Your task to perform on an android device: Go to Android settings Image 0: 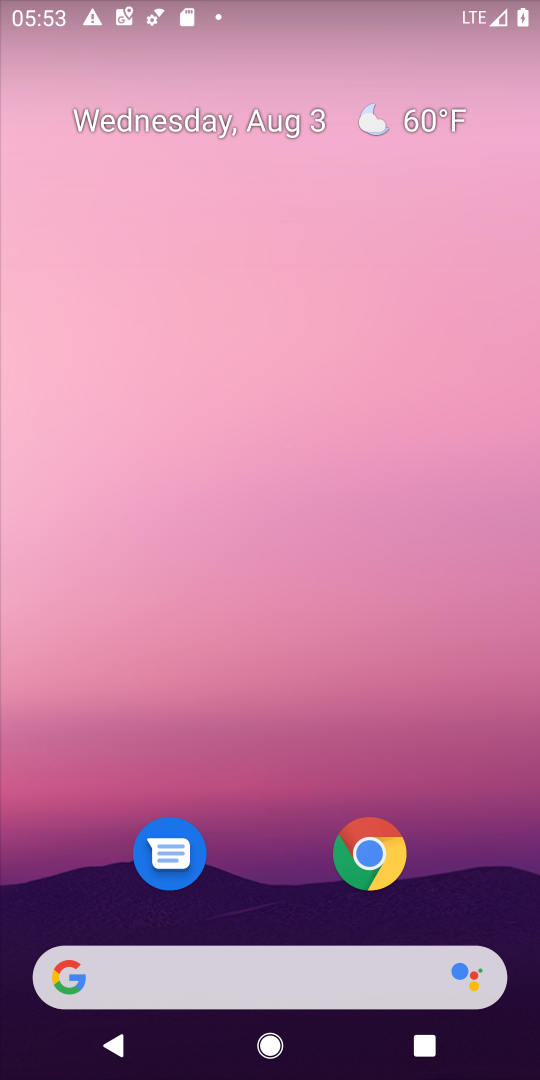
Step 0: drag from (312, 1036) to (312, 64)
Your task to perform on an android device: Go to Android settings Image 1: 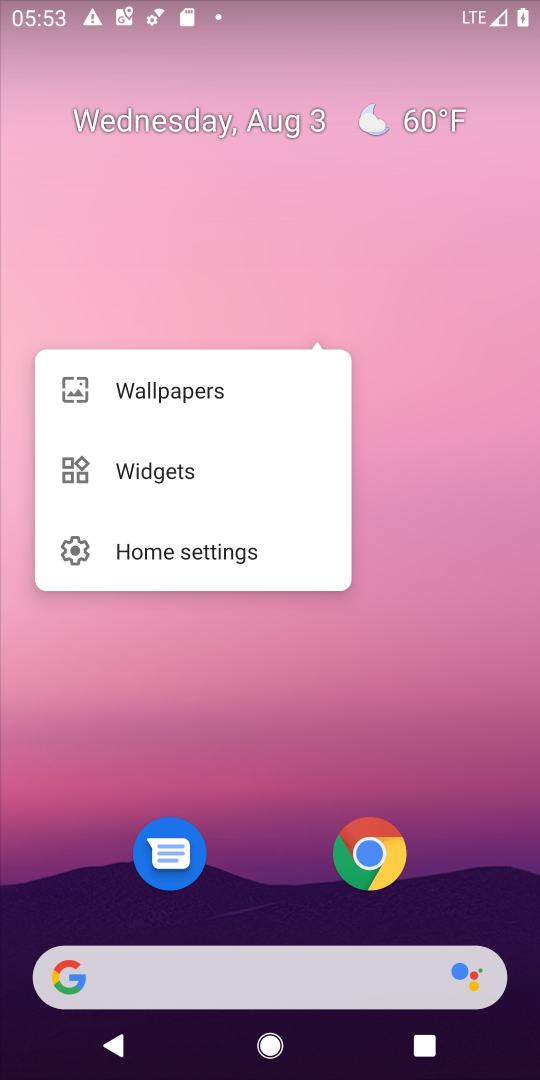
Step 1: click (411, 621)
Your task to perform on an android device: Go to Android settings Image 2: 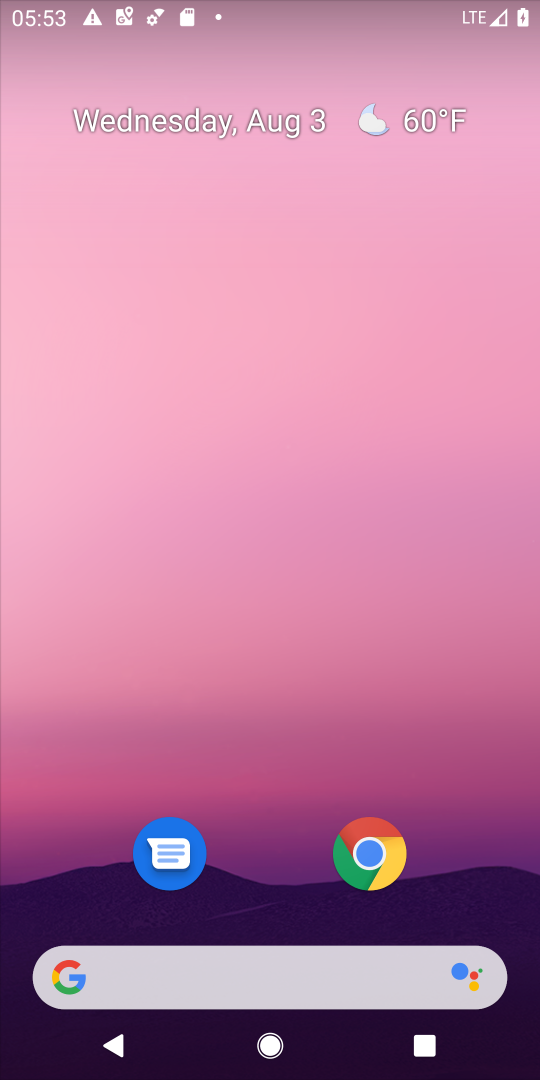
Step 2: drag from (262, 922) to (264, 157)
Your task to perform on an android device: Go to Android settings Image 3: 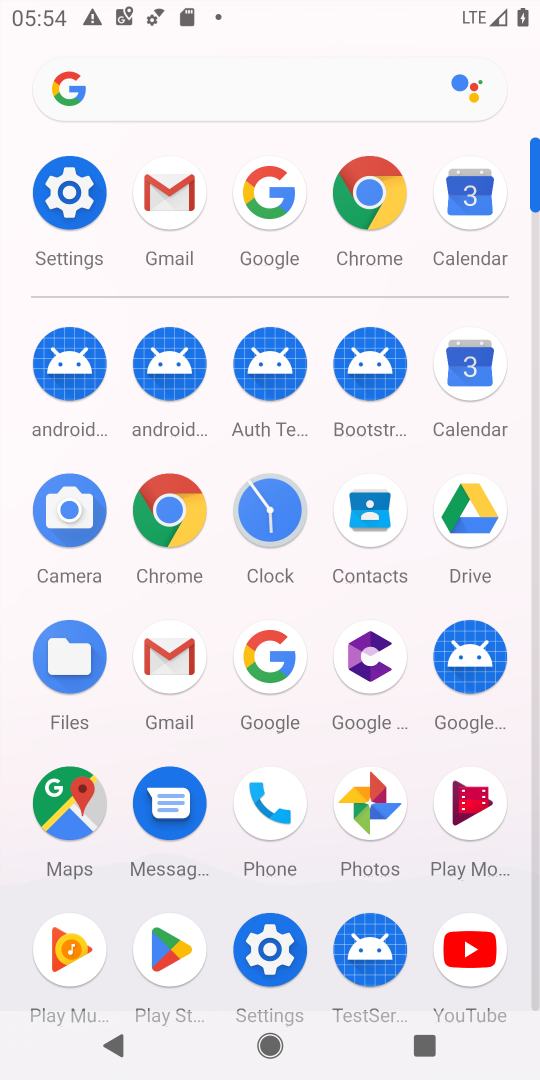
Step 3: click (80, 209)
Your task to perform on an android device: Go to Android settings Image 4: 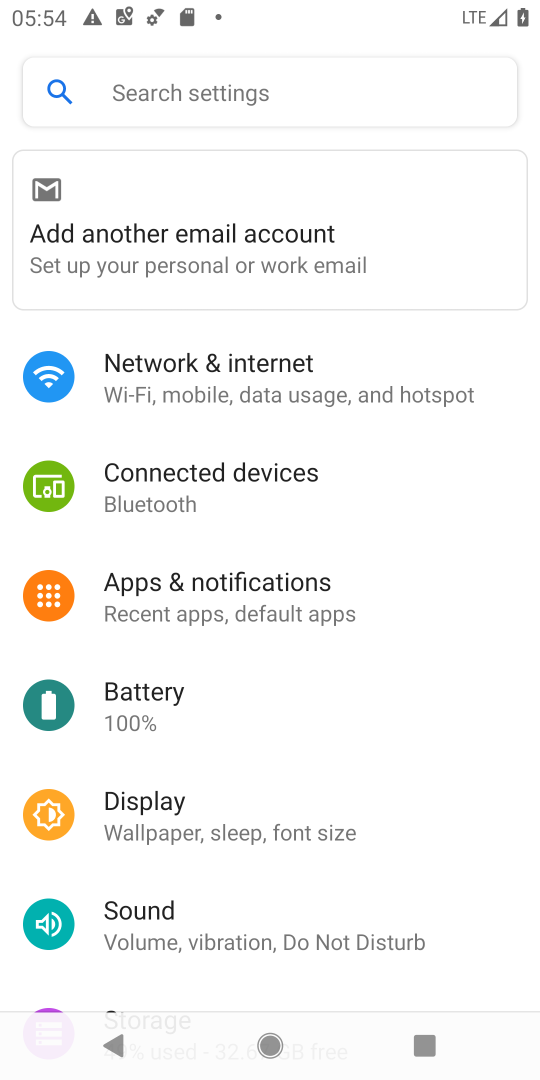
Step 4: task complete